Your task to perform on an android device: Open Google Chrome and click the shortcut for Amazon.com Image 0: 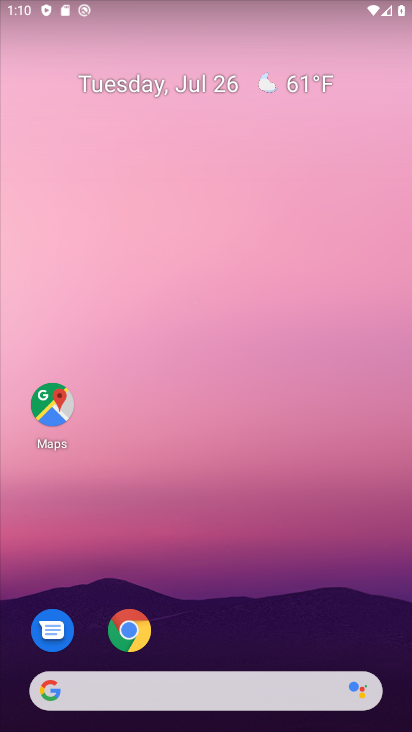
Step 0: click (135, 627)
Your task to perform on an android device: Open Google Chrome and click the shortcut for Amazon.com Image 1: 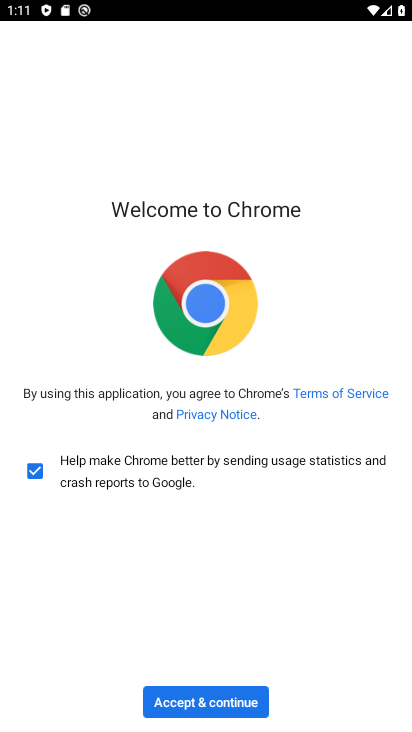
Step 1: click (209, 696)
Your task to perform on an android device: Open Google Chrome and click the shortcut for Amazon.com Image 2: 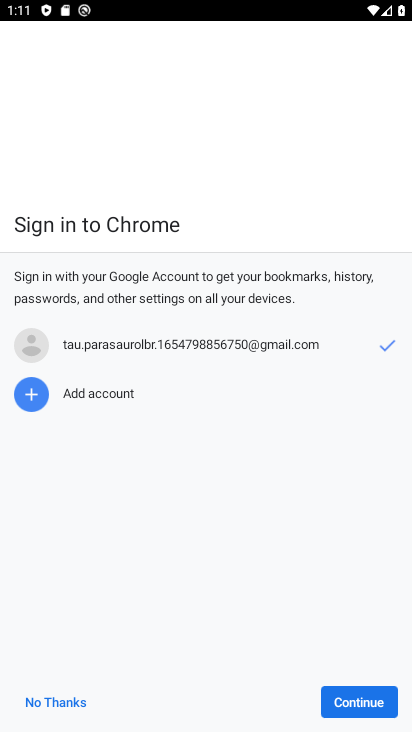
Step 2: click (334, 701)
Your task to perform on an android device: Open Google Chrome and click the shortcut for Amazon.com Image 3: 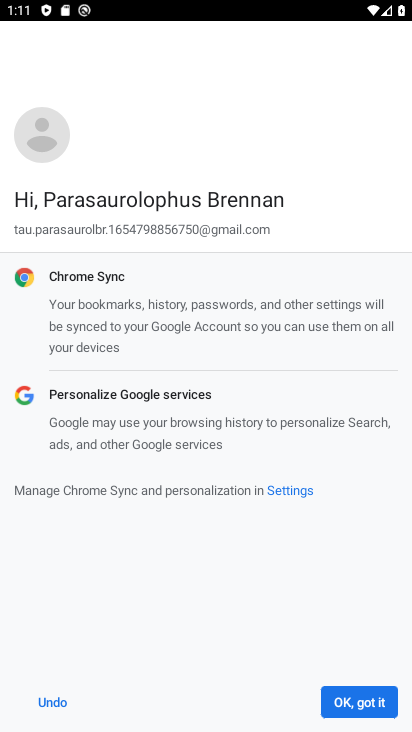
Step 3: click (342, 697)
Your task to perform on an android device: Open Google Chrome and click the shortcut for Amazon.com Image 4: 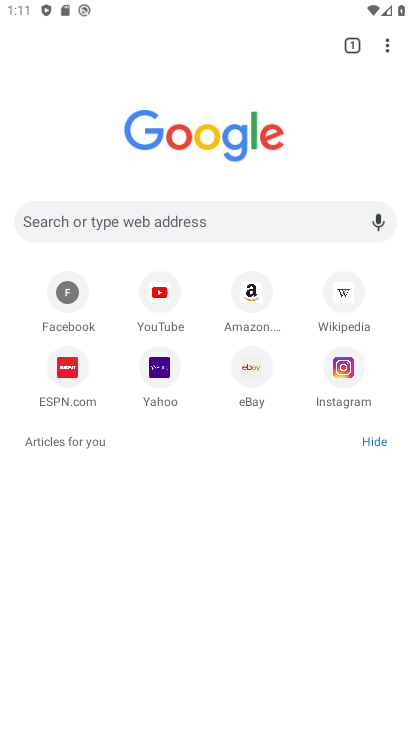
Step 4: click (253, 299)
Your task to perform on an android device: Open Google Chrome and click the shortcut for Amazon.com Image 5: 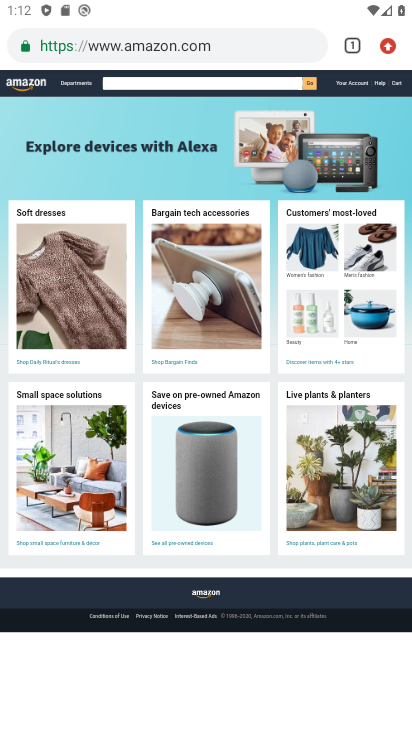
Step 5: task complete